Your task to perform on an android device: turn on wifi Image 0: 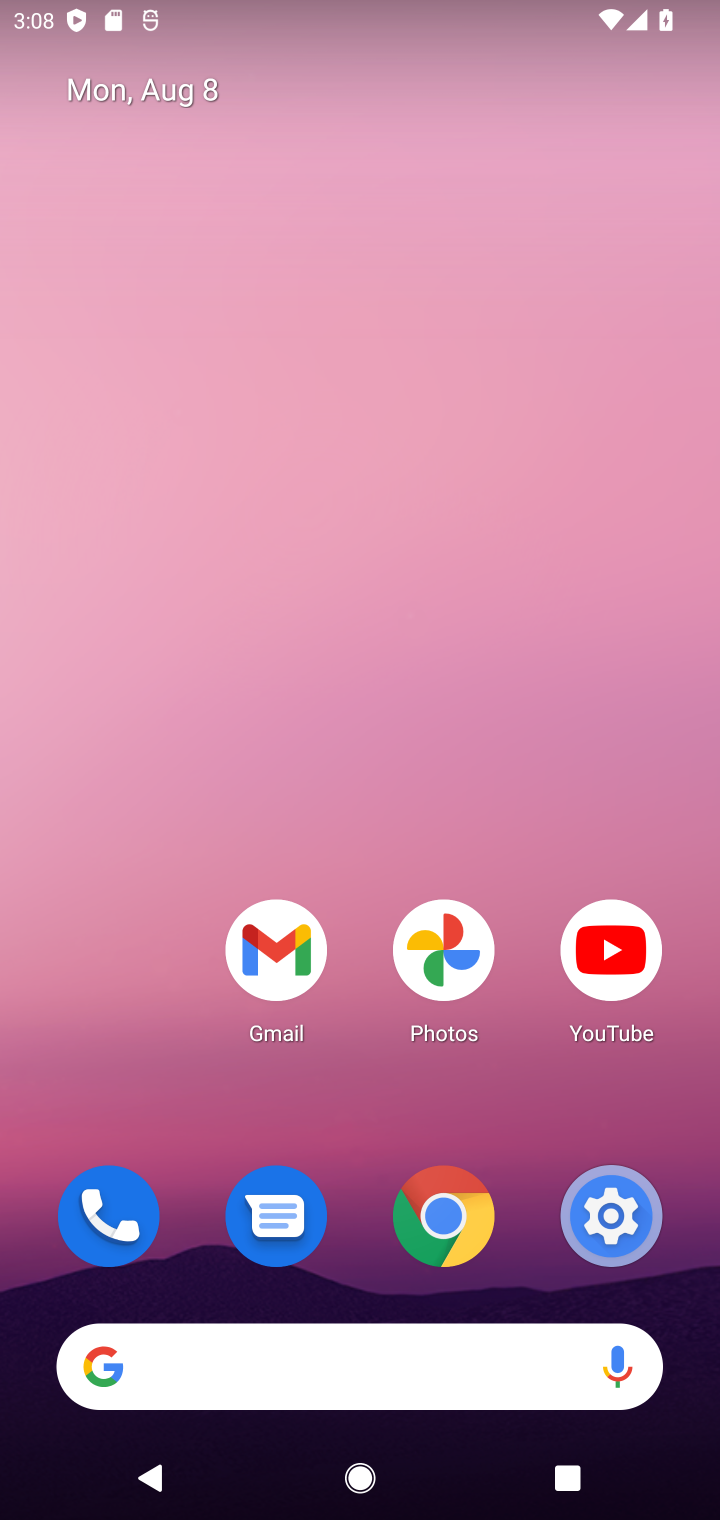
Step 0: drag from (359, 1193) to (359, 539)
Your task to perform on an android device: turn on wifi Image 1: 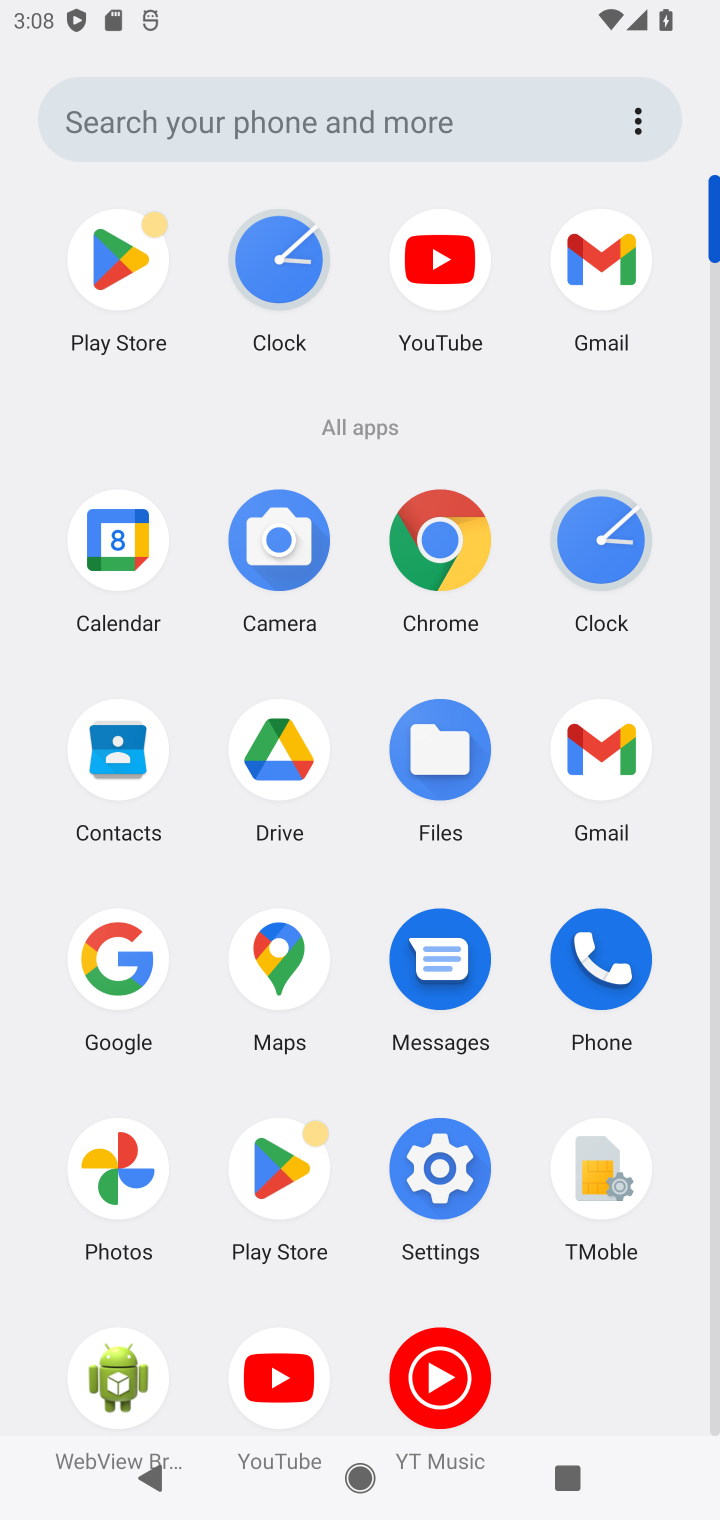
Step 1: click (472, 1167)
Your task to perform on an android device: turn on wifi Image 2: 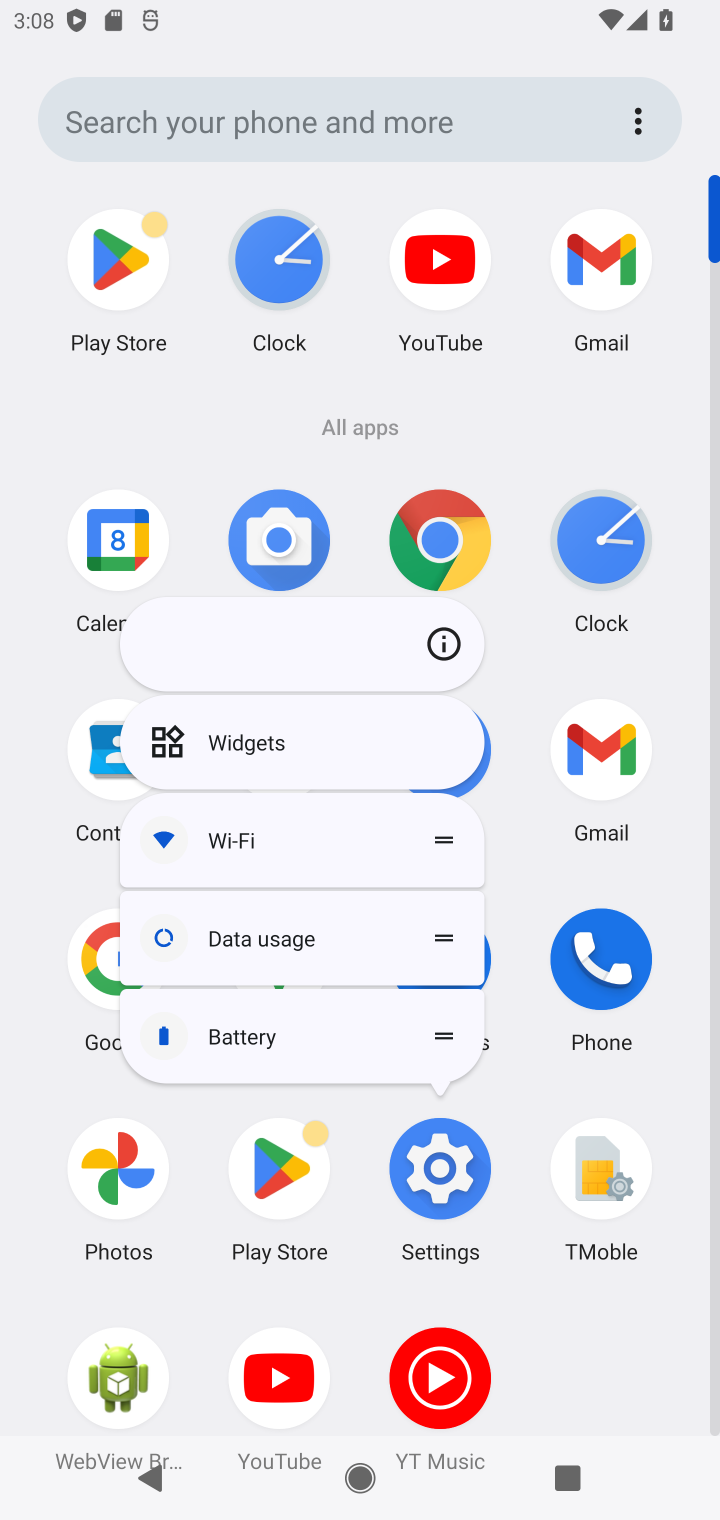
Step 2: click (451, 1180)
Your task to perform on an android device: turn on wifi Image 3: 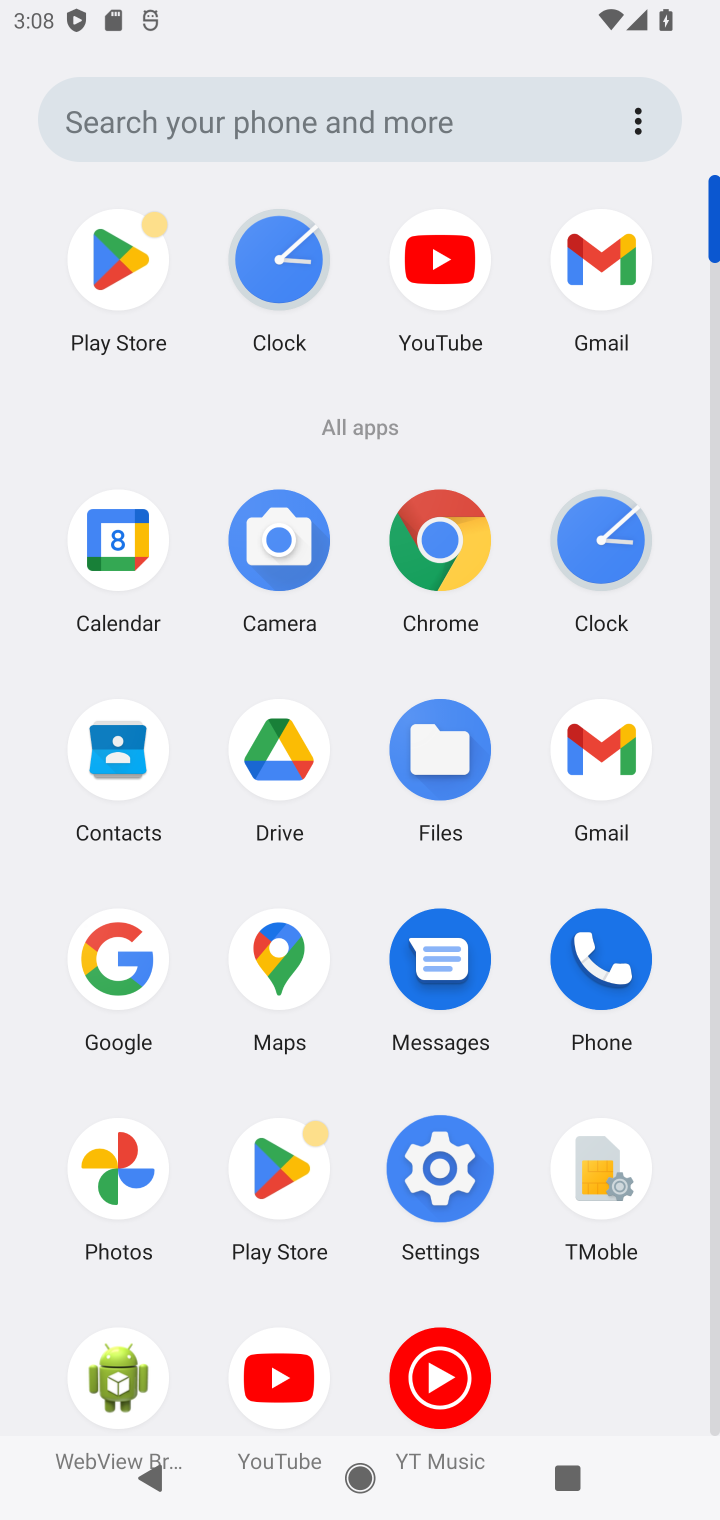
Step 3: click (449, 1182)
Your task to perform on an android device: turn on wifi Image 4: 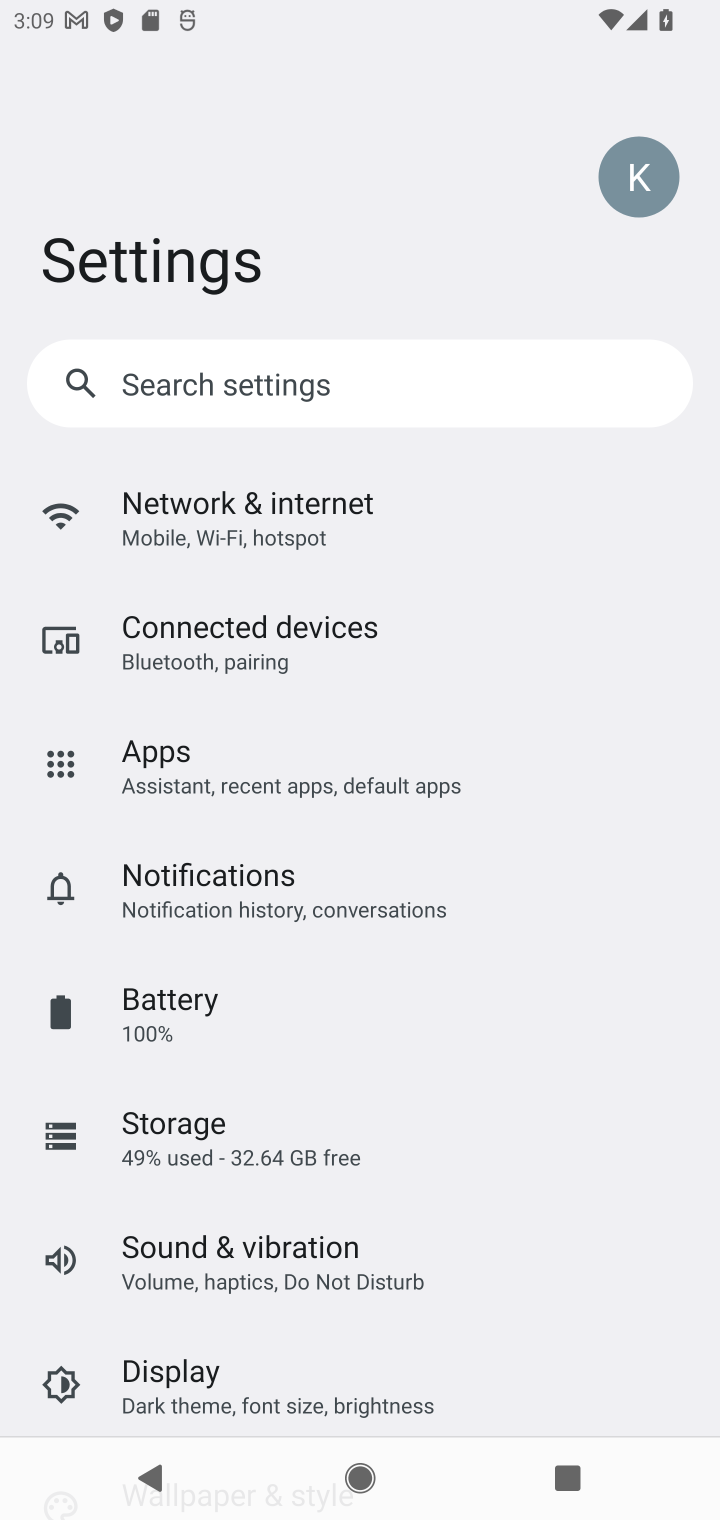
Step 4: click (239, 537)
Your task to perform on an android device: turn on wifi Image 5: 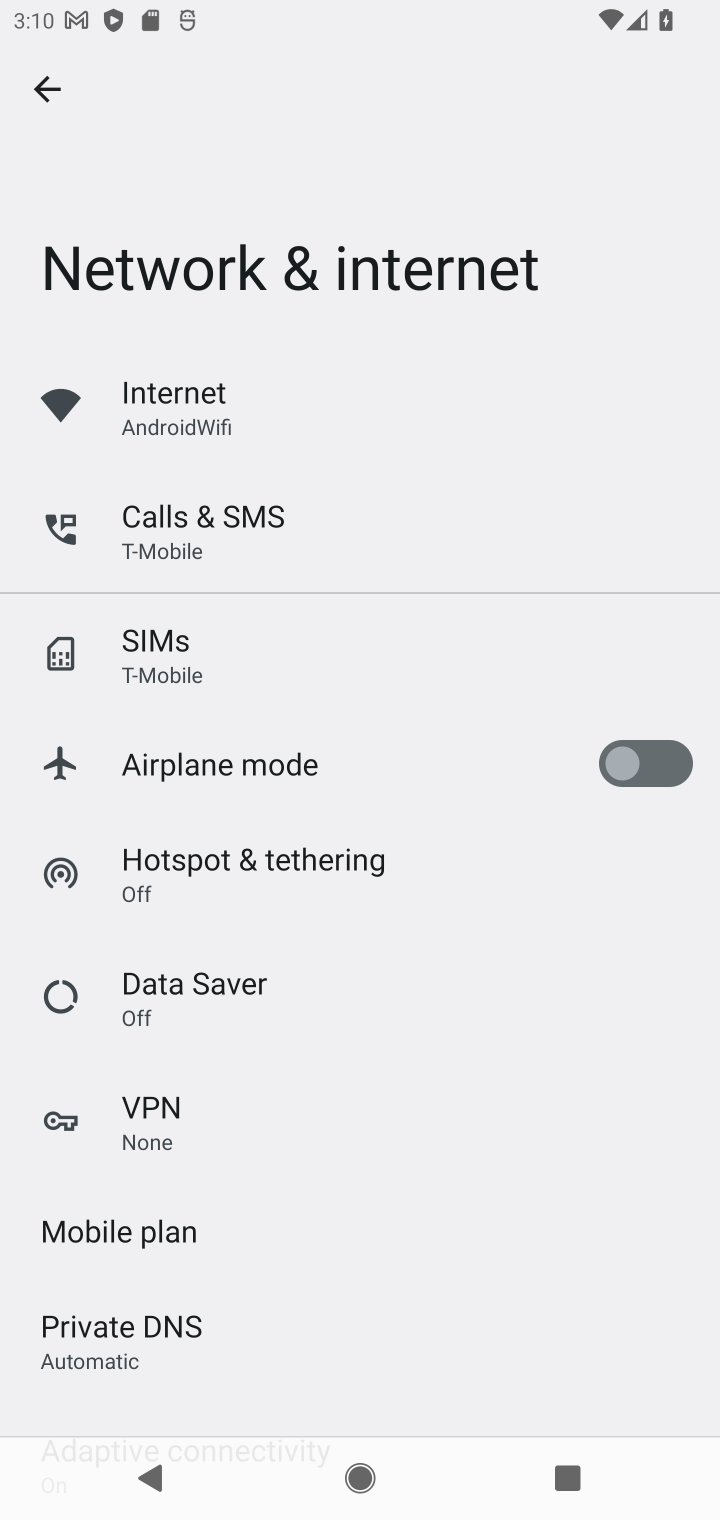
Step 5: click (181, 409)
Your task to perform on an android device: turn on wifi Image 6: 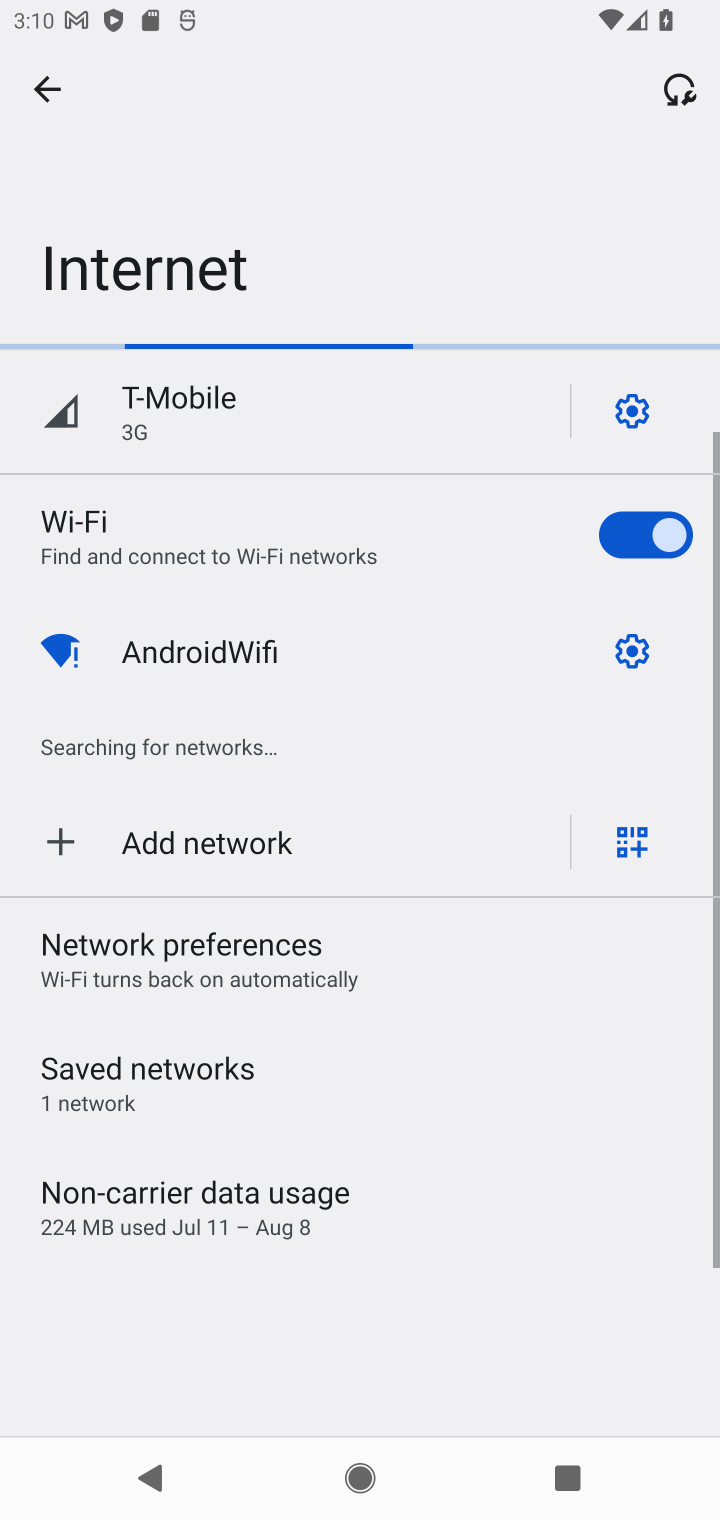
Step 6: task complete